Your task to perform on an android device: Show me the alarms in the clock app Image 0: 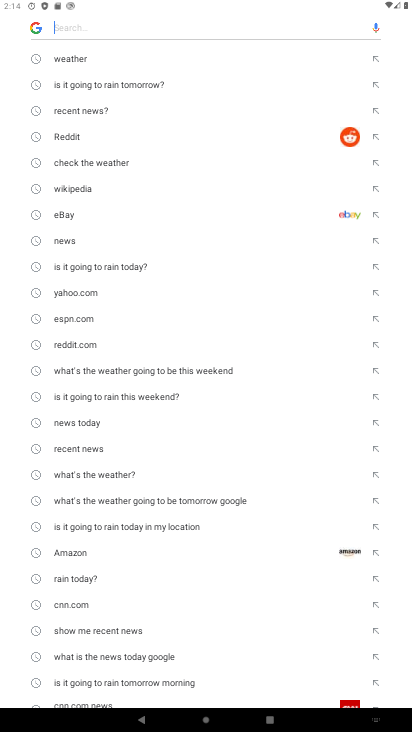
Step 0: press home button
Your task to perform on an android device: Show me the alarms in the clock app Image 1: 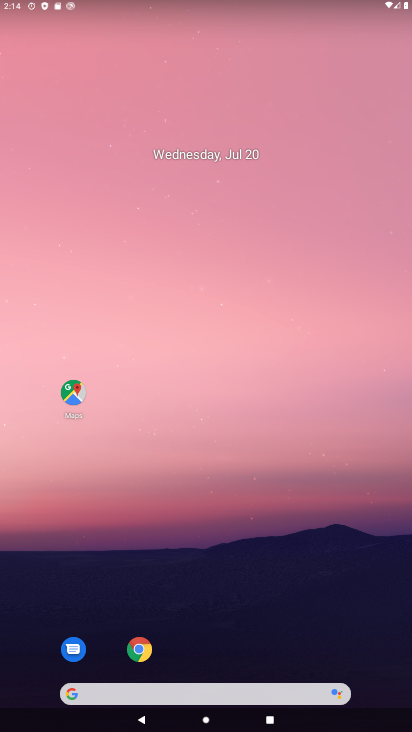
Step 1: drag from (273, 616) to (274, 80)
Your task to perform on an android device: Show me the alarms in the clock app Image 2: 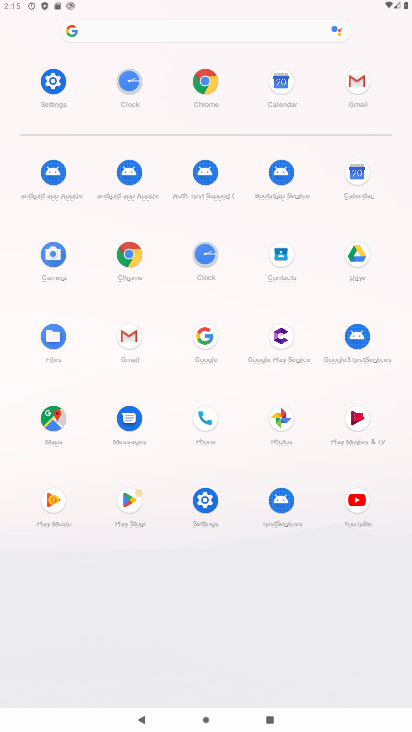
Step 2: click (206, 261)
Your task to perform on an android device: Show me the alarms in the clock app Image 3: 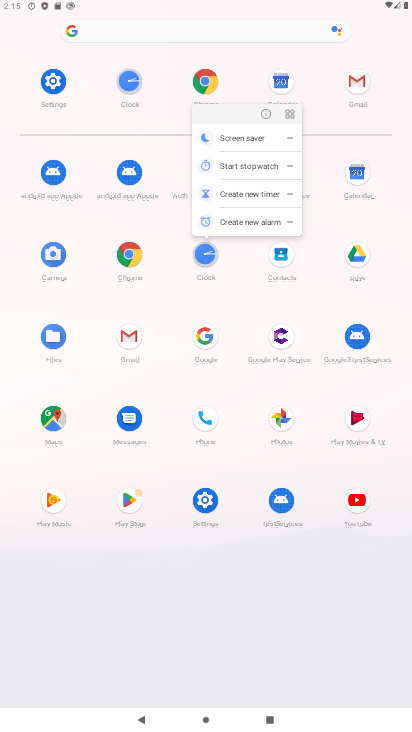
Step 3: click (206, 261)
Your task to perform on an android device: Show me the alarms in the clock app Image 4: 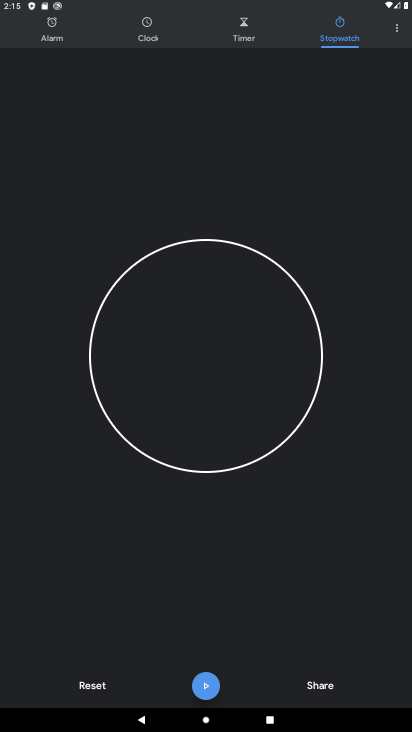
Step 4: task complete